Your task to perform on an android device: turn off priority inbox in the gmail app Image 0: 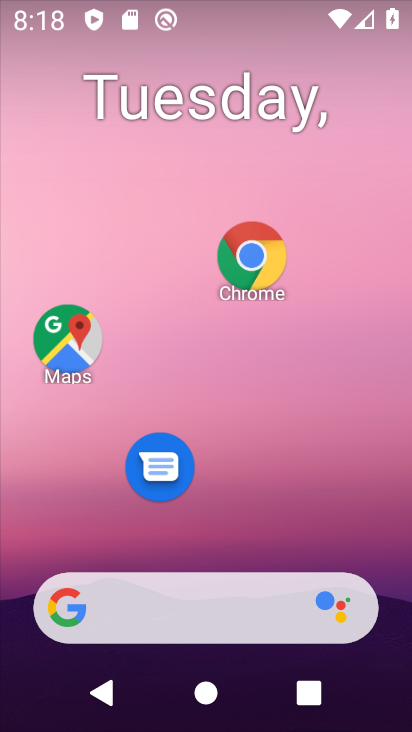
Step 0: drag from (257, 166) to (260, 99)
Your task to perform on an android device: turn off priority inbox in the gmail app Image 1: 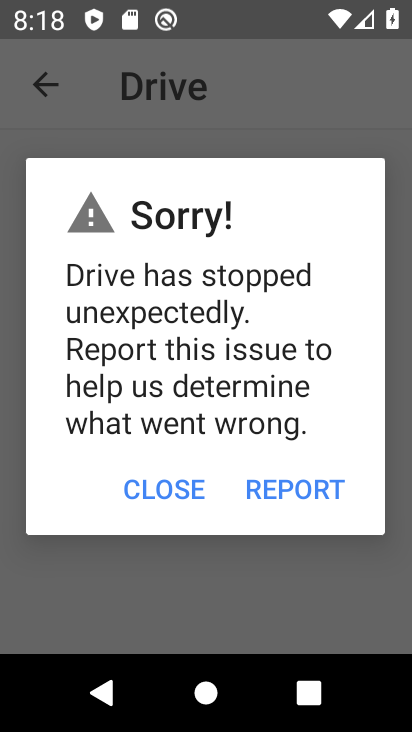
Step 1: press home button
Your task to perform on an android device: turn off priority inbox in the gmail app Image 2: 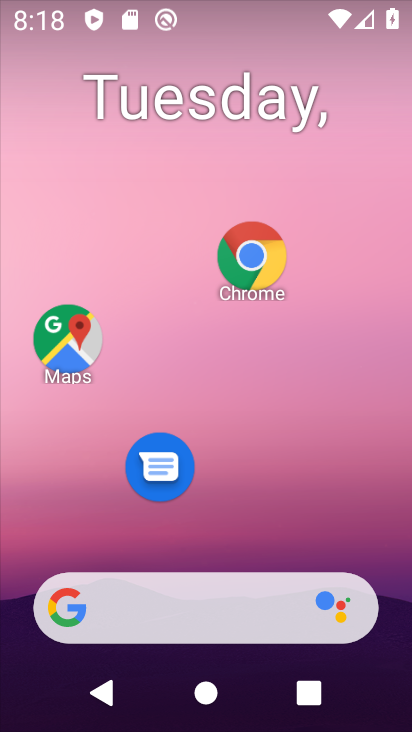
Step 2: drag from (293, 518) to (298, 173)
Your task to perform on an android device: turn off priority inbox in the gmail app Image 3: 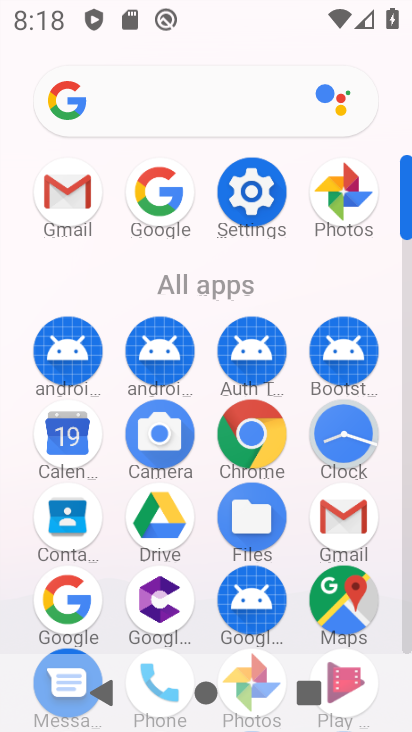
Step 3: click (70, 199)
Your task to perform on an android device: turn off priority inbox in the gmail app Image 4: 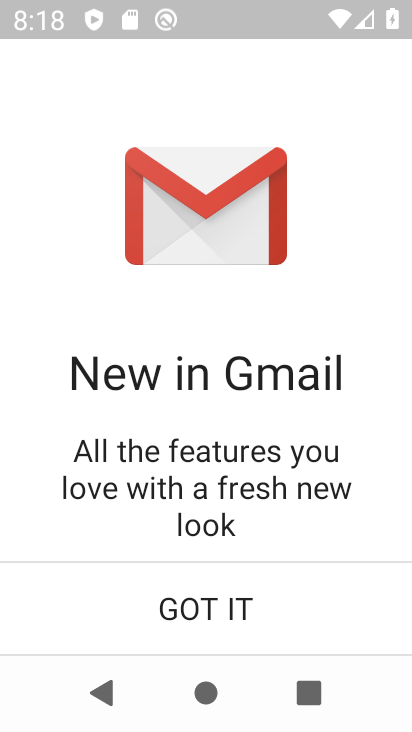
Step 4: click (199, 613)
Your task to perform on an android device: turn off priority inbox in the gmail app Image 5: 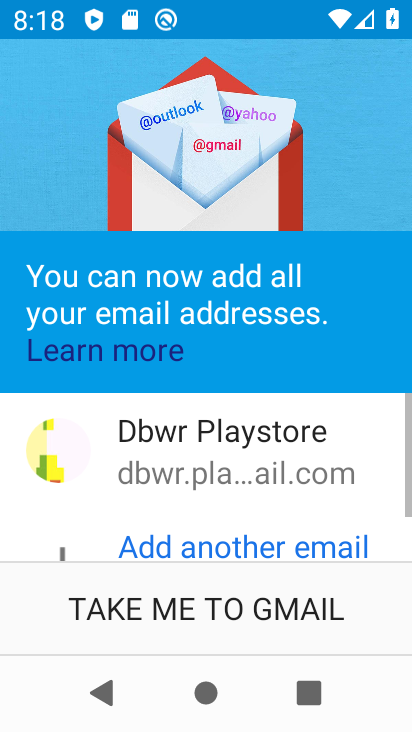
Step 5: click (199, 612)
Your task to perform on an android device: turn off priority inbox in the gmail app Image 6: 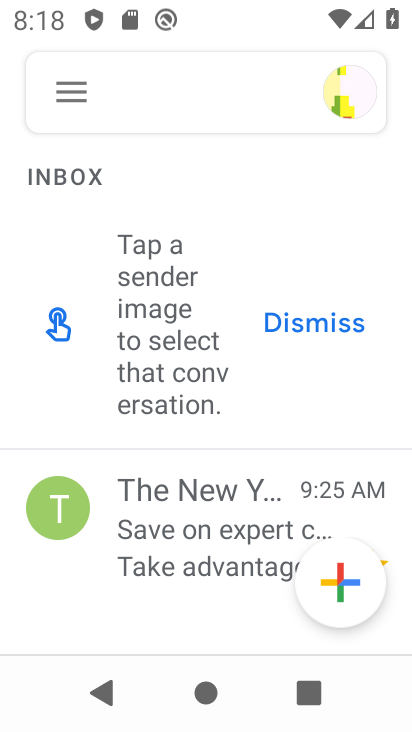
Step 6: click (81, 92)
Your task to perform on an android device: turn off priority inbox in the gmail app Image 7: 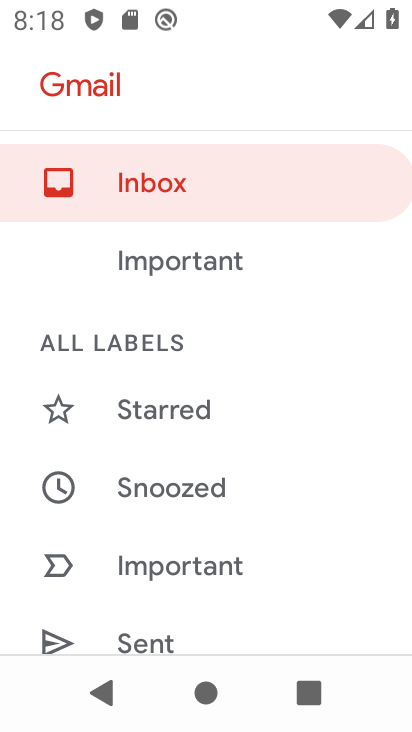
Step 7: drag from (175, 624) to (204, 186)
Your task to perform on an android device: turn off priority inbox in the gmail app Image 8: 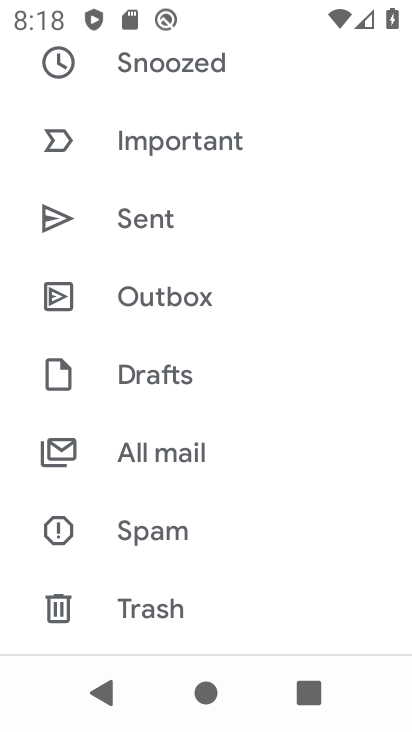
Step 8: drag from (200, 511) to (260, 128)
Your task to perform on an android device: turn off priority inbox in the gmail app Image 9: 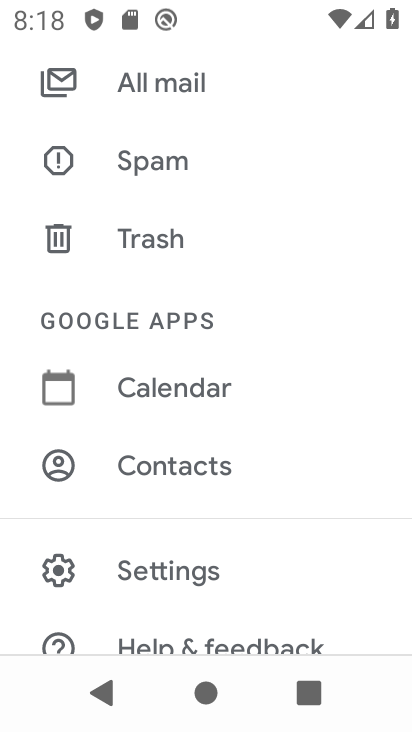
Step 9: click (158, 583)
Your task to perform on an android device: turn off priority inbox in the gmail app Image 10: 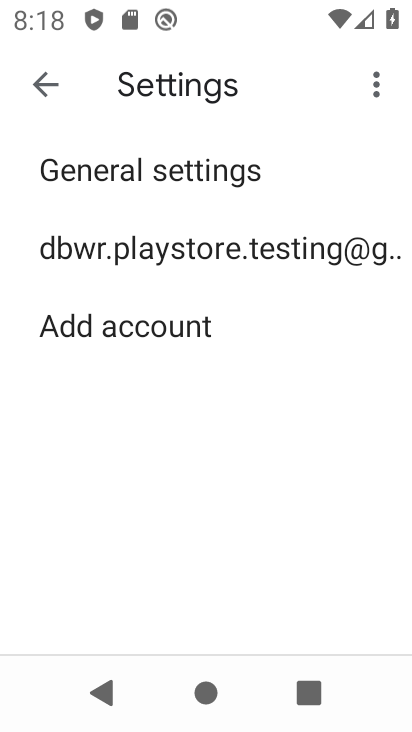
Step 10: click (87, 239)
Your task to perform on an android device: turn off priority inbox in the gmail app Image 11: 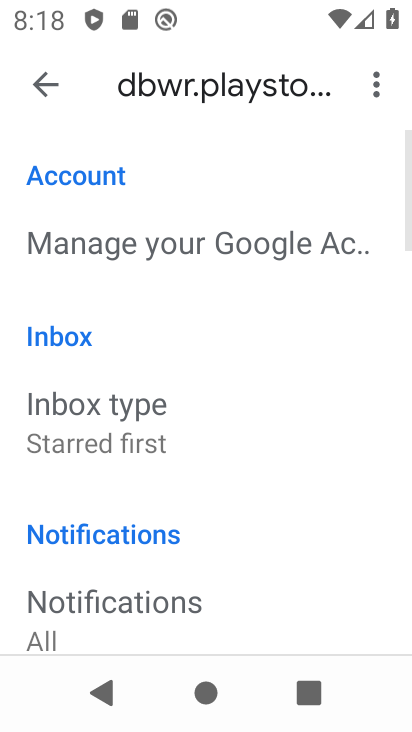
Step 11: drag from (167, 495) to (167, 362)
Your task to perform on an android device: turn off priority inbox in the gmail app Image 12: 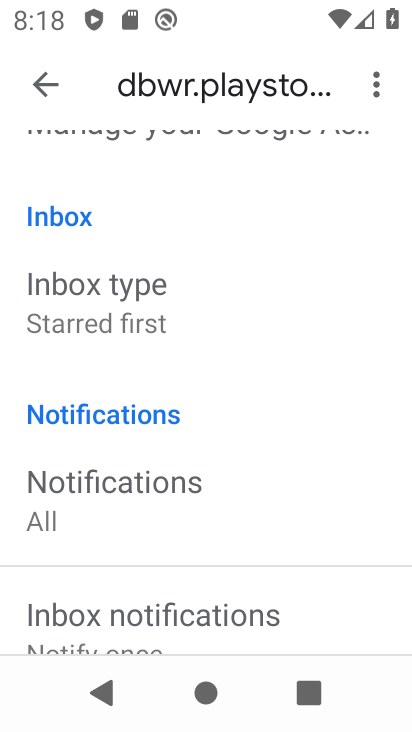
Step 12: click (135, 309)
Your task to perform on an android device: turn off priority inbox in the gmail app Image 13: 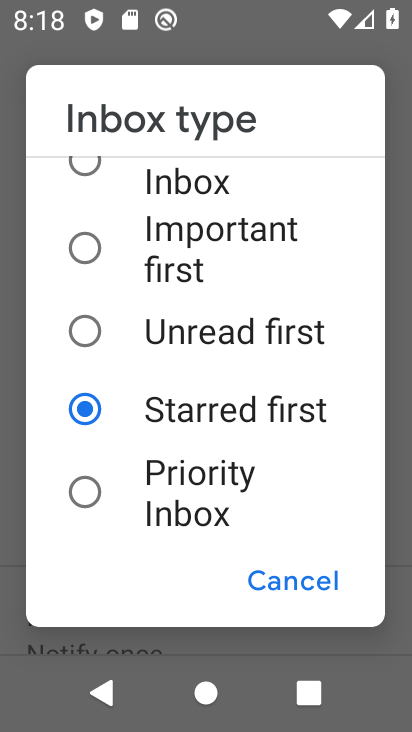
Step 13: task complete